Your task to perform on an android device: What is the news today? Image 0: 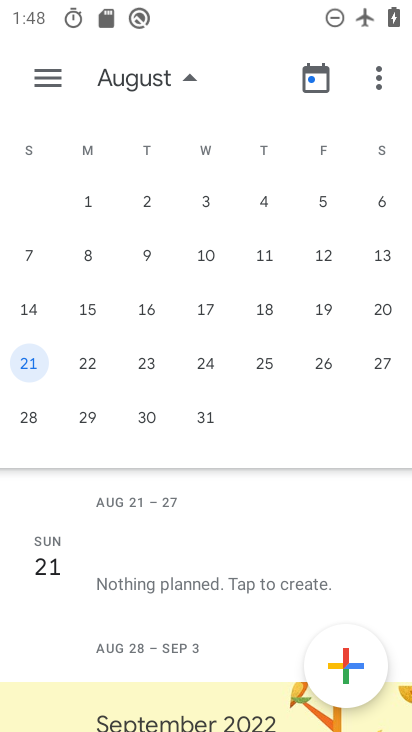
Step 0: press home button
Your task to perform on an android device: What is the news today? Image 1: 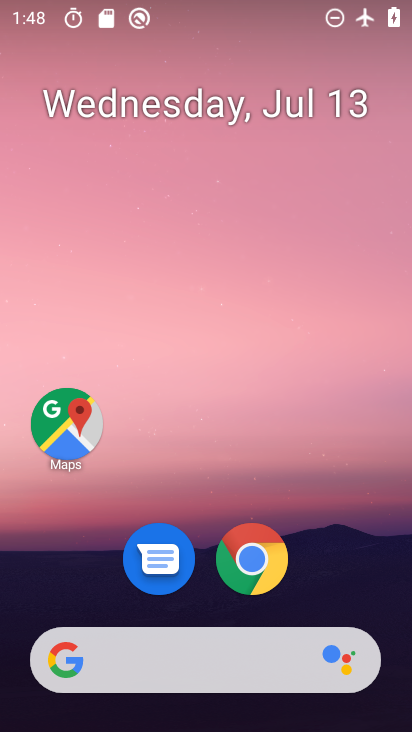
Step 1: drag from (338, 614) to (357, 159)
Your task to perform on an android device: What is the news today? Image 2: 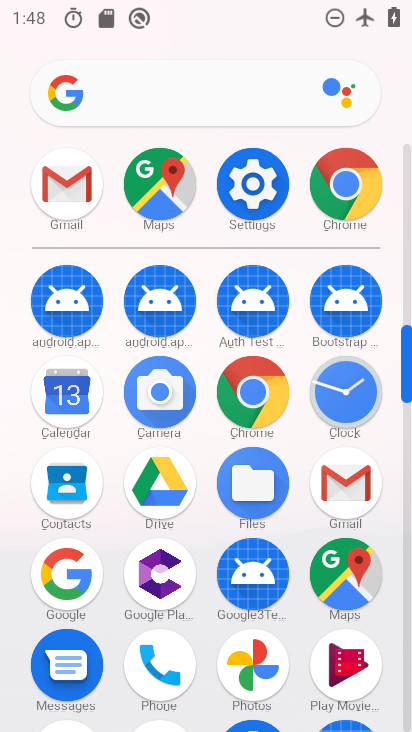
Step 2: drag from (215, 541) to (232, 313)
Your task to perform on an android device: What is the news today? Image 3: 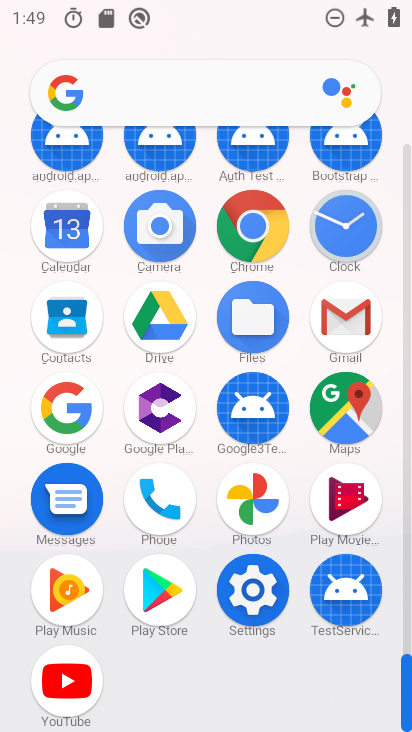
Step 3: click (78, 407)
Your task to perform on an android device: What is the news today? Image 4: 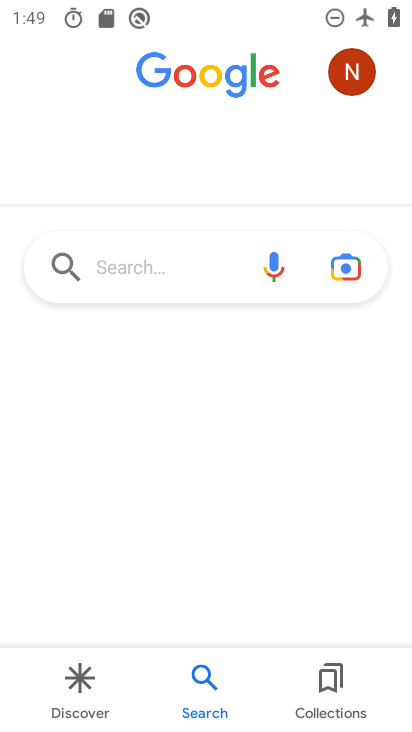
Step 4: click (169, 279)
Your task to perform on an android device: What is the news today? Image 5: 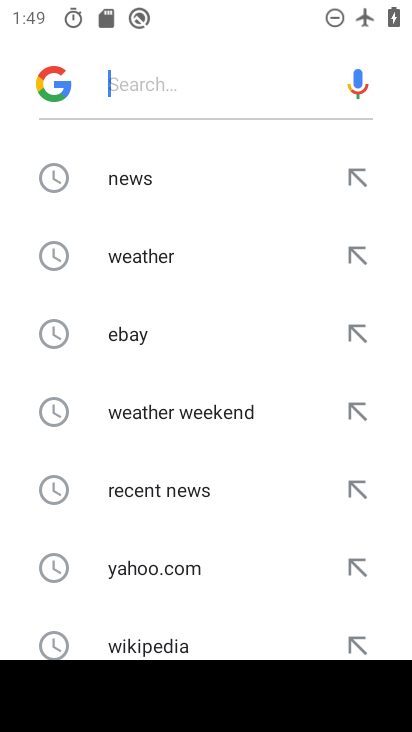
Step 5: click (351, 187)
Your task to perform on an android device: What is the news today? Image 6: 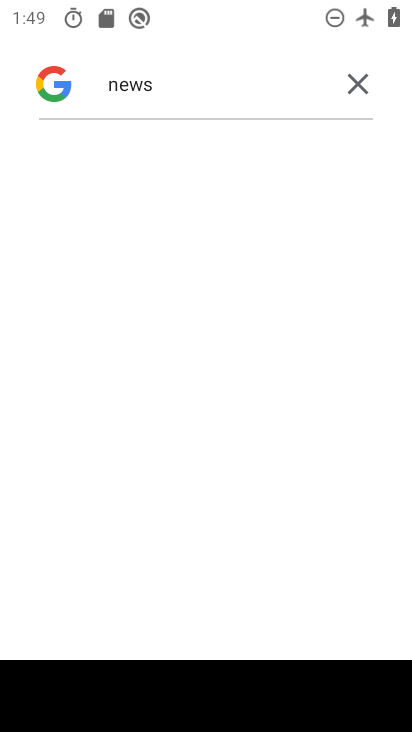
Step 6: click (182, 93)
Your task to perform on an android device: What is the news today? Image 7: 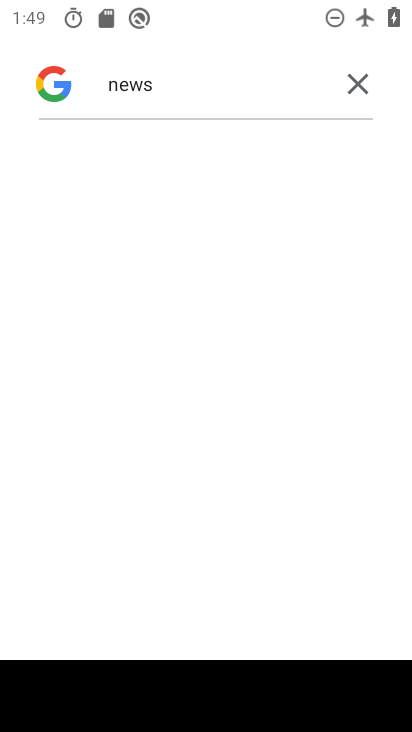
Step 7: task complete